Your task to perform on an android device: turn off priority inbox in the gmail app Image 0: 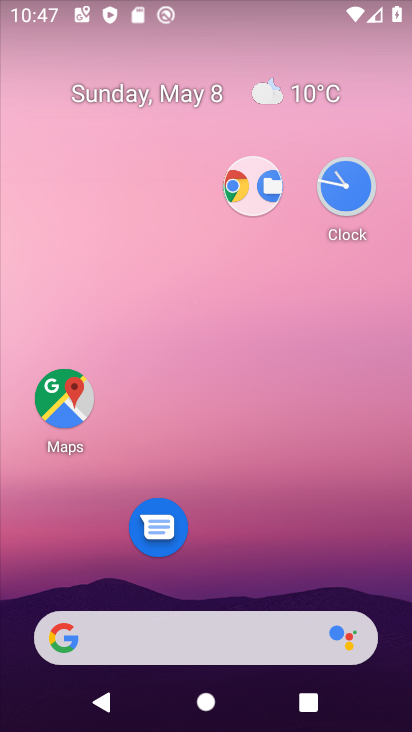
Step 0: drag from (267, 587) to (168, 109)
Your task to perform on an android device: turn off priority inbox in the gmail app Image 1: 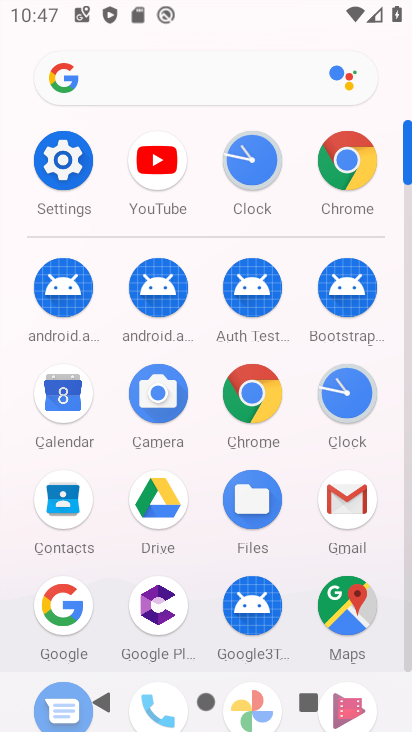
Step 1: click (355, 505)
Your task to perform on an android device: turn off priority inbox in the gmail app Image 2: 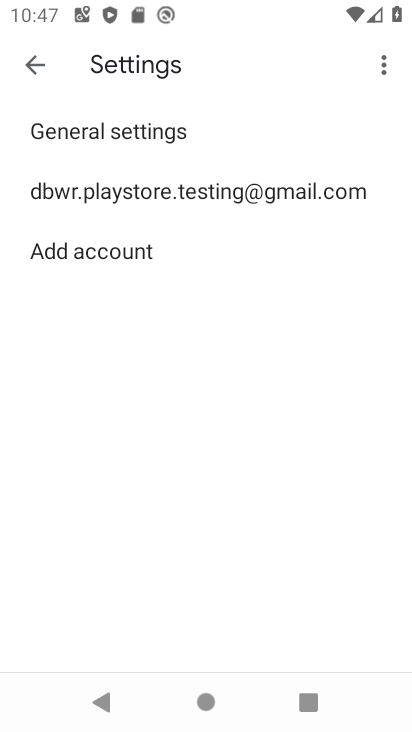
Step 2: click (177, 199)
Your task to perform on an android device: turn off priority inbox in the gmail app Image 3: 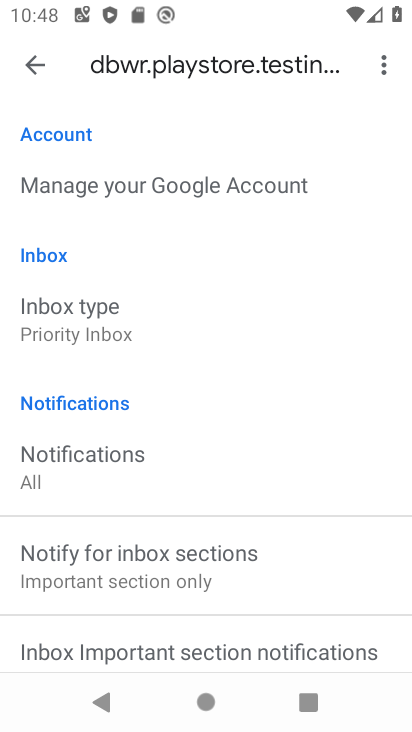
Step 3: click (127, 339)
Your task to perform on an android device: turn off priority inbox in the gmail app Image 4: 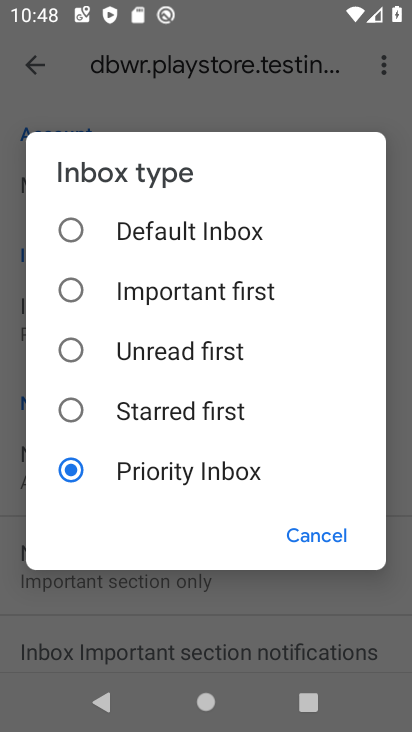
Step 4: click (83, 232)
Your task to perform on an android device: turn off priority inbox in the gmail app Image 5: 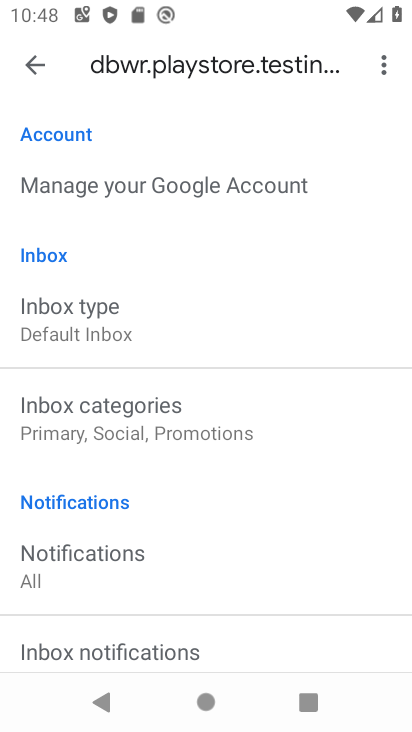
Step 5: task complete